Your task to perform on an android device: change notification settings in the gmail app Image 0: 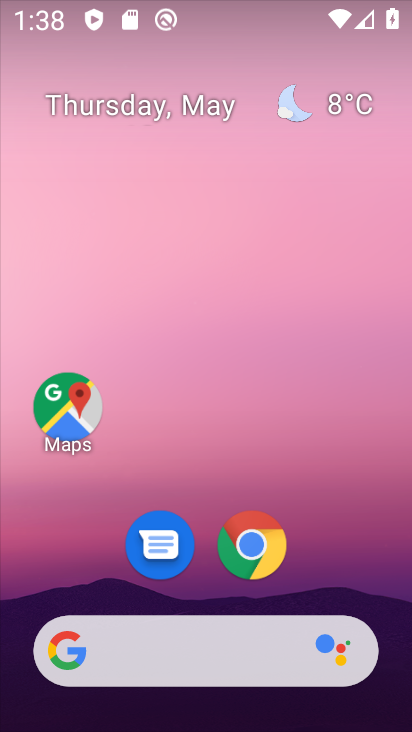
Step 0: drag from (403, 631) to (283, 0)
Your task to perform on an android device: change notification settings in the gmail app Image 1: 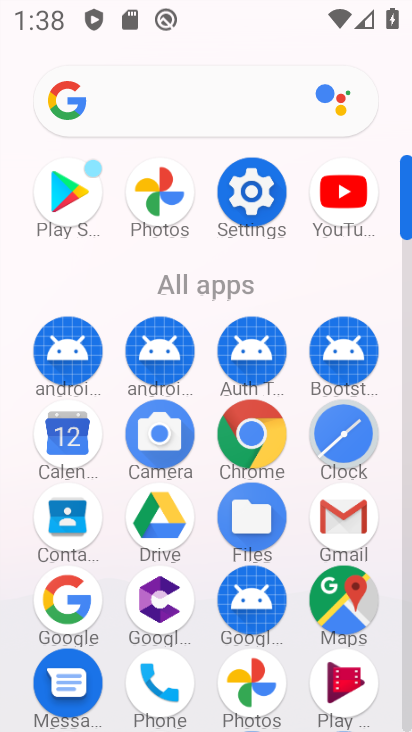
Step 1: click (407, 692)
Your task to perform on an android device: change notification settings in the gmail app Image 2: 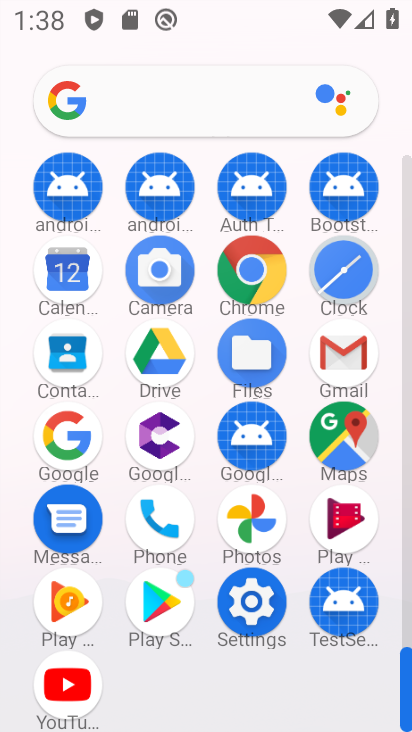
Step 2: click (341, 352)
Your task to perform on an android device: change notification settings in the gmail app Image 3: 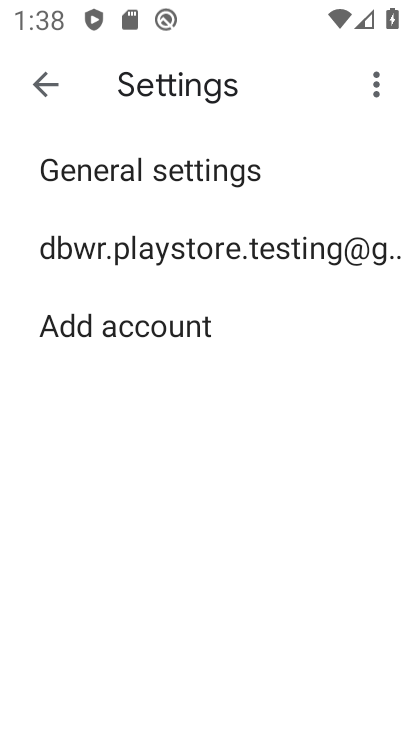
Step 3: click (173, 245)
Your task to perform on an android device: change notification settings in the gmail app Image 4: 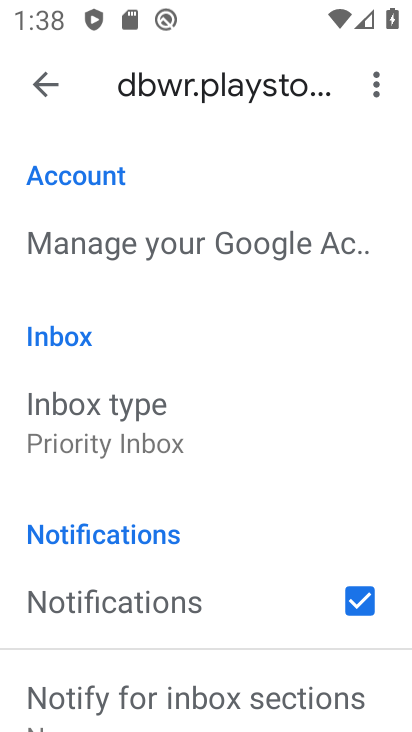
Step 4: drag from (219, 651) to (254, 143)
Your task to perform on an android device: change notification settings in the gmail app Image 5: 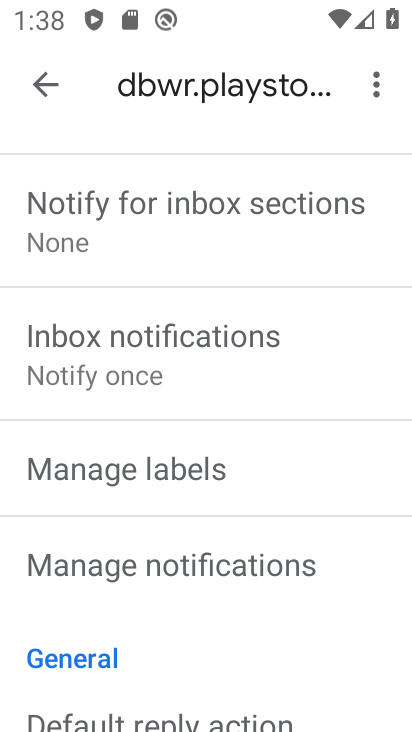
Step 5: click (143, 569)
Your task to perform on an android device: change notification settings in the gmail app Image 6: 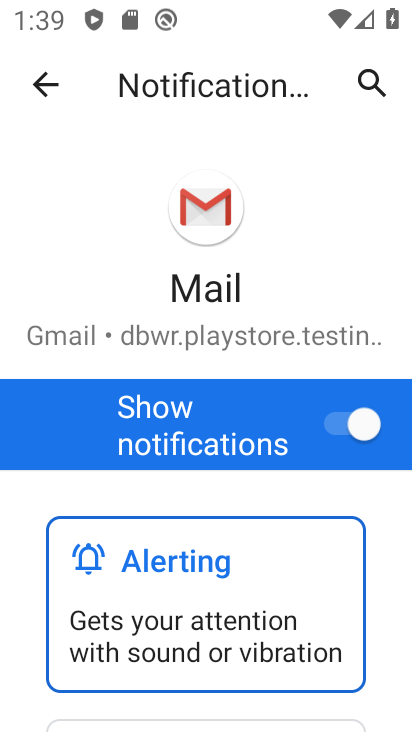
Step 6: click (337, 420)
Your task to perform on an android device: change notification settings in the gmail app Image 7: 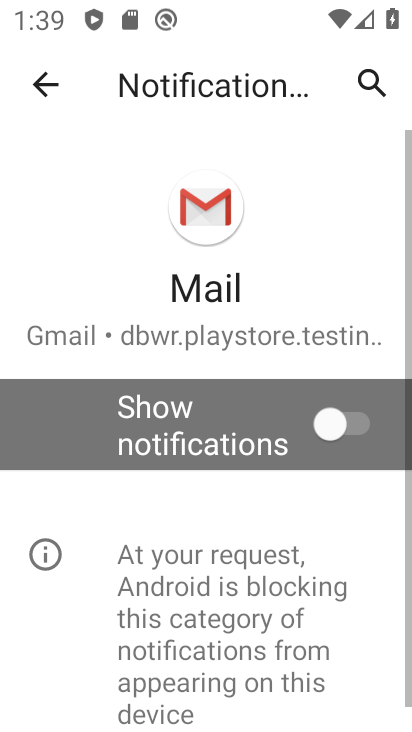
Step 7: task complete